Your task to perform on an android device: change the clock display to digital Image 0: 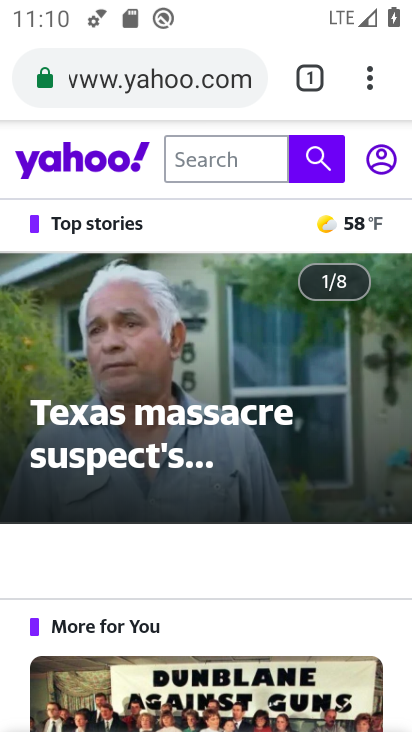
Step 0: press home button
Your task to perform on an android device: change the clock display to digital Image 1: 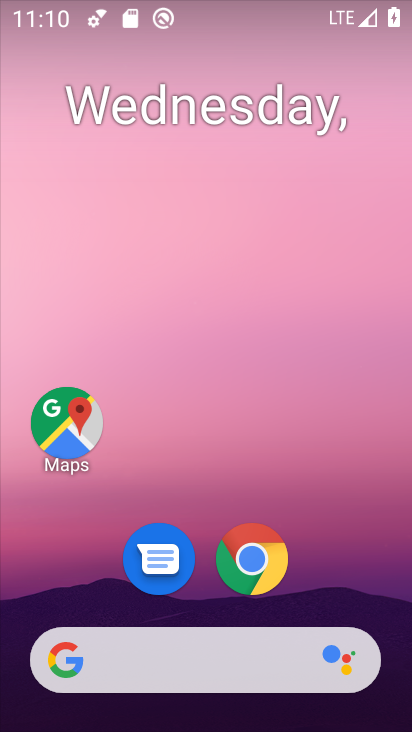
Step 1: drag from (203, 698) to (256, 56)
Your task to perform on an android device: change the clock display to digital Image 2: 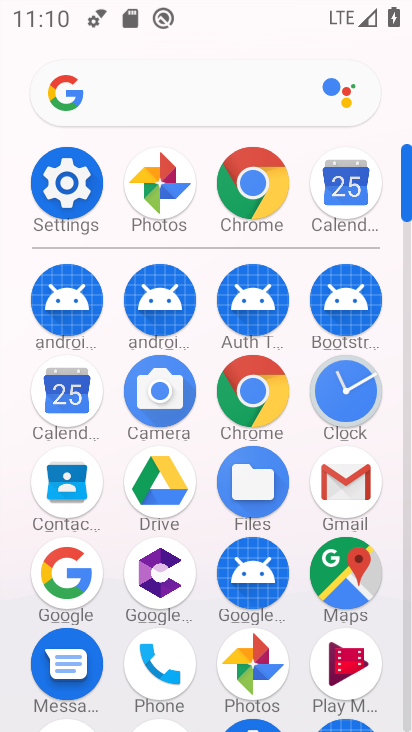
Step 2: click (333, 386)
Your task to perform on an android device: change the clock display to digital Image 3: 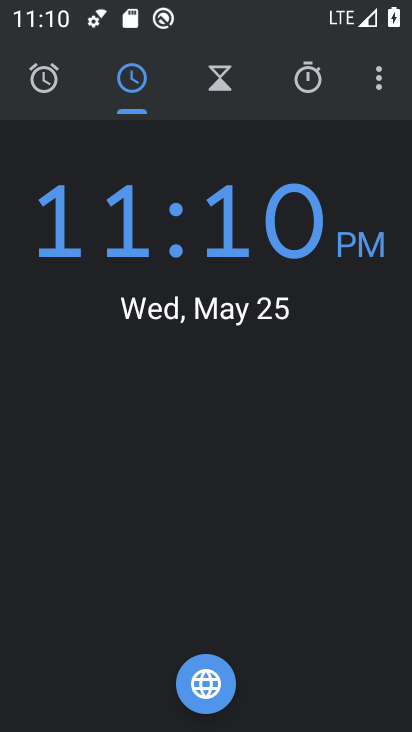
Step 3: click (378, 94)
Your task to perform on an android device: change the clock display to digital Image 4: 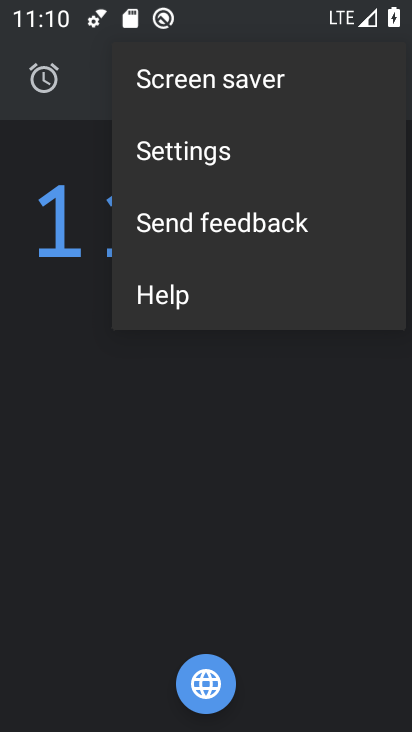
Step 4: click (191, 169)
Your task to perform on an android device: change the clock display to digital Image 5: 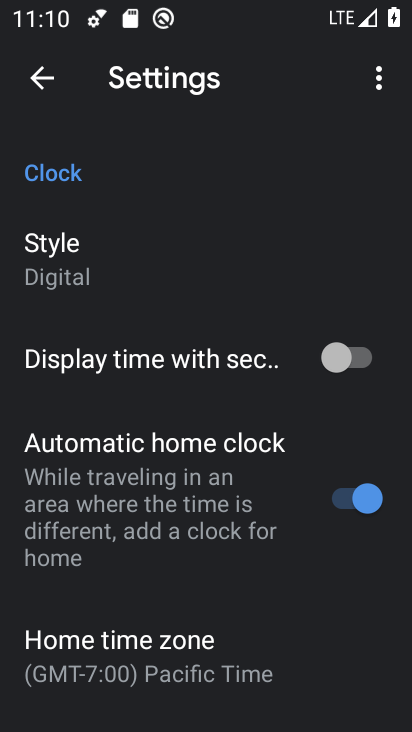
Step 5: click (94, 282)
Your task to perform on an android device: change the clock display to digital Image 6: 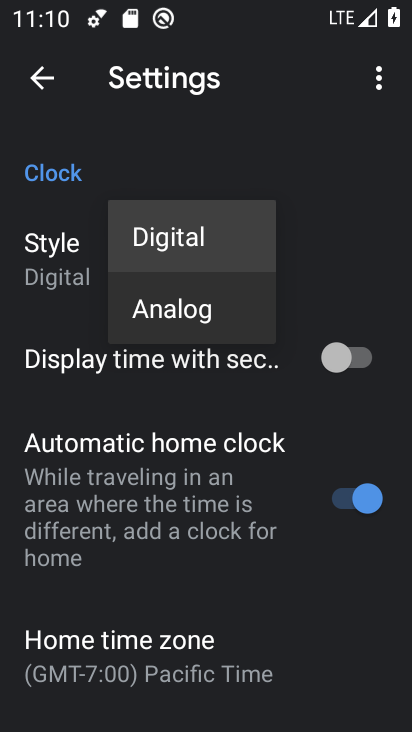
Step 6: click (156, 235)
Your task to perform on an android device: change the clock display to digital Image 7: 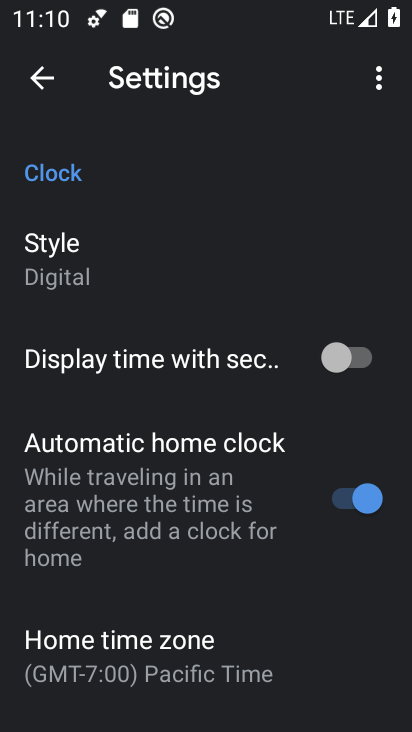
Step 7: task complete